Your task to perform on an android device: turn off smart reply in the gmail app Image 0: 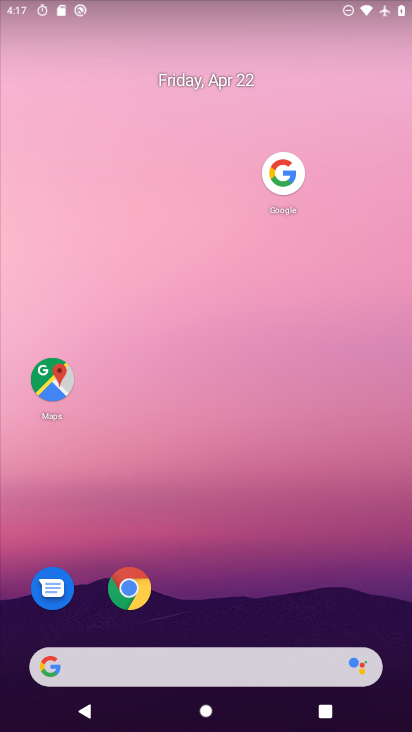
Step 0: drag from (208, 623) to (319, 12)
Your task to perform on an android device: turn off smart reply in the gmail app Image 1: 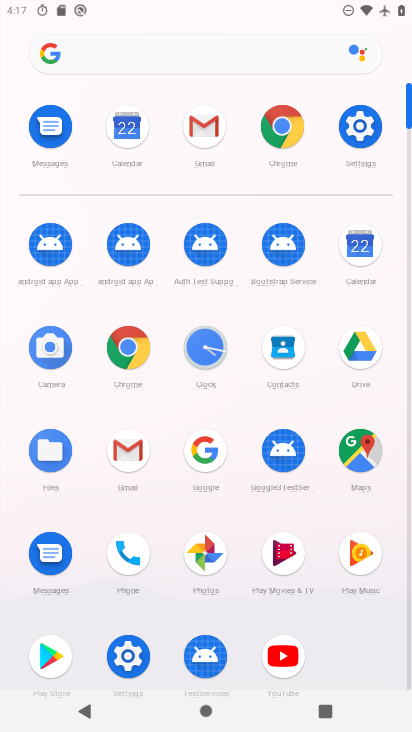
Step 1: click (124, 449)
Your task to perform on an android device: turn off smart reply in the gmail app Image 2: 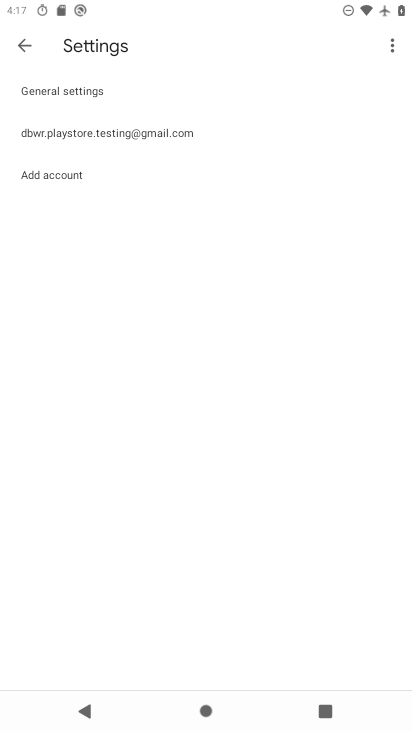
Step 2: click (49, 132)
Your task to perform on an android device: turn off smart reply in the gmail app Image 3: 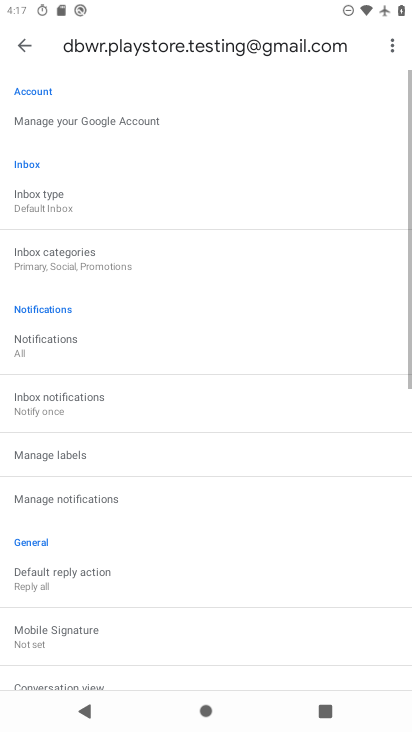
Step 3: drag from (253, 612) to (218, 143)
Your task to perform on an android device: turn off smart reply in the gmail app Image 4: 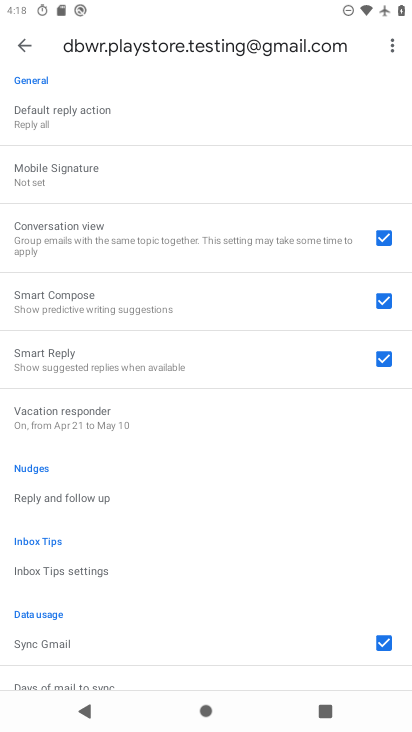
Step 4: click (379, 356)
Your task to perform on an android device: turn off smart reply in the gmail app Image 5: 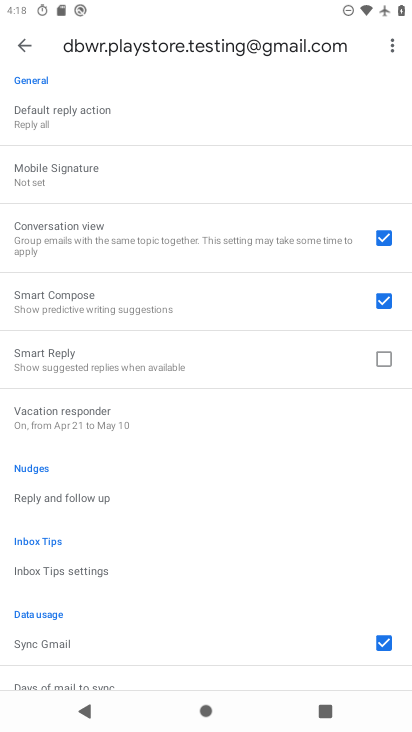
Step 5: task complete